Your task to perform on an android device: open a new tab in the chrome app Image 0: 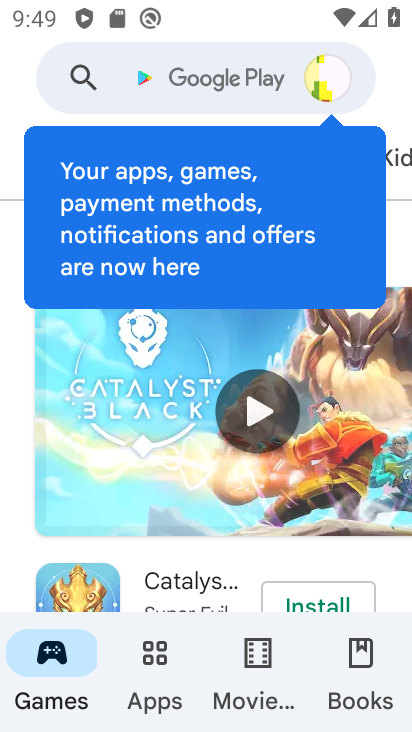
Step 0: press home button
Your task to perform on an android device: open a new tab in the chrome app Image 1: 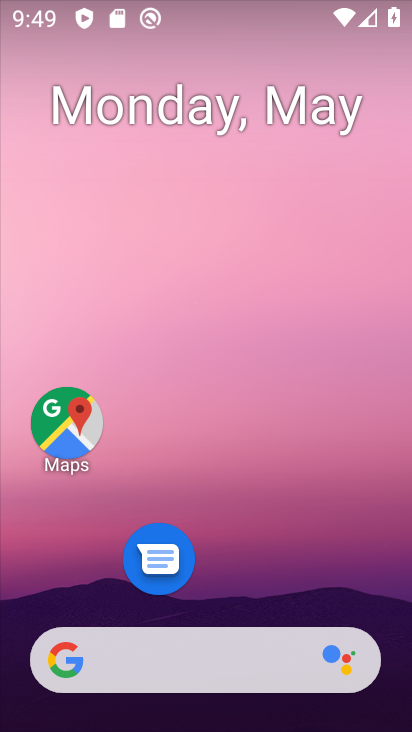
Step 1: drag from (62, 493) to (358, 442)
Your task to perform on an android device: open a new tab in the chrome app Image 2: 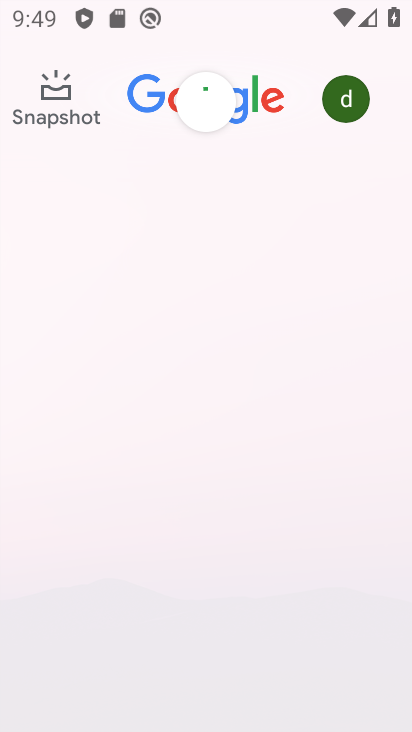
Step 2: press back button
Your task to perform on an android device: open a new tab in the chrome app Image 3: 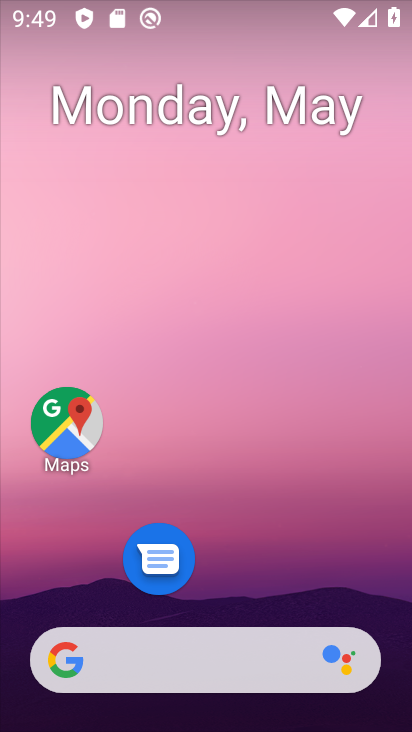
Step 3: drag from (287, 415) to (152, 322)
Your task to perform on an android device: open a new tab in the chrome app Image 4: 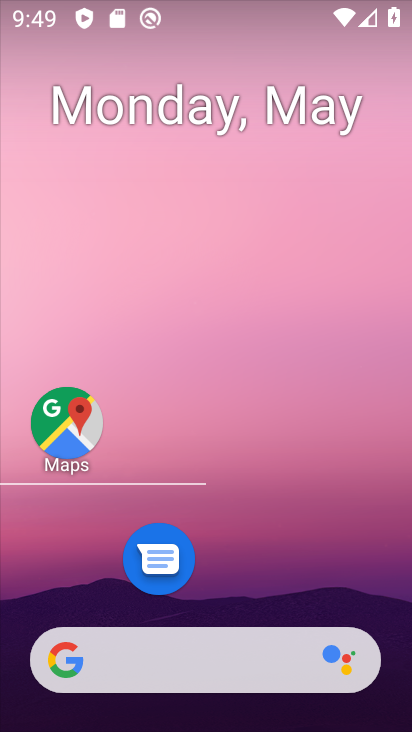
Step 4: drag from (253, 598) to (198, 80)
Your task to perform on an android device: open a new tab in the chrome app Image 5: 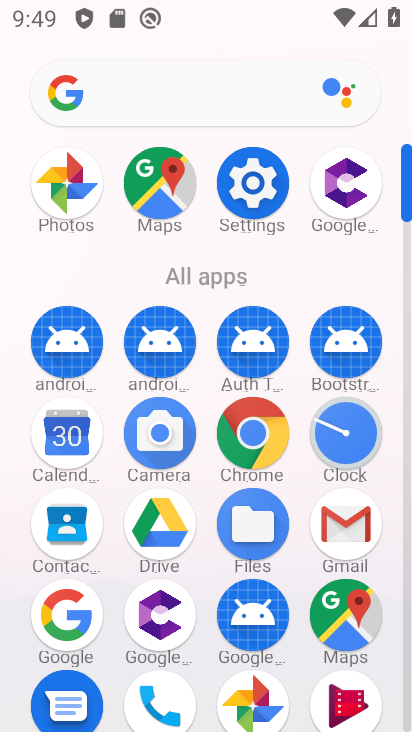
Step 5: drag from (268, 430) to (223, 466)
Your task to perform on an android device: open a new tab in the chrome app Image 6: 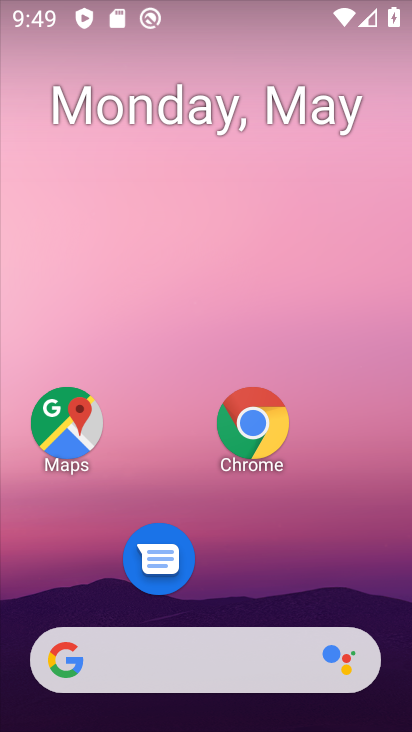
Step 6: click (255, 414)
Your task to perform on an android device: open a new tab in the chrome app Image 7: 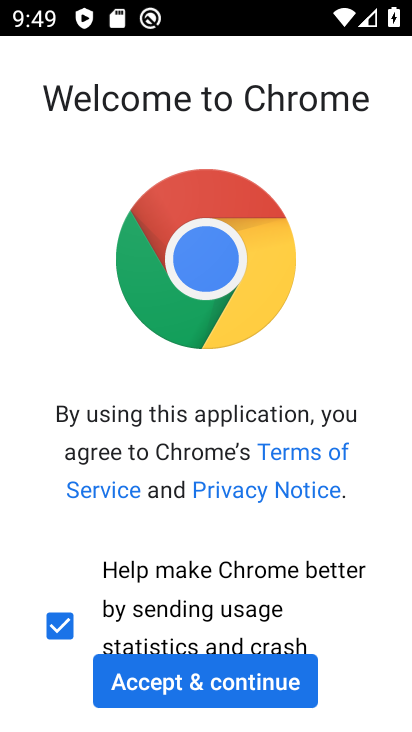
Step 7: click (219, 692)
Your task to perform on an android device: open a new tab in the chrome app Image 8: 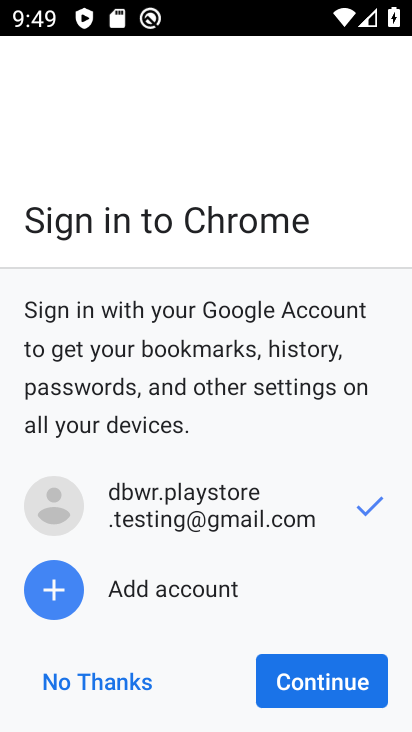
Step 8: click (342, 675)
Your task to perform on an android device: open a new tab in the chrome app Image 9: 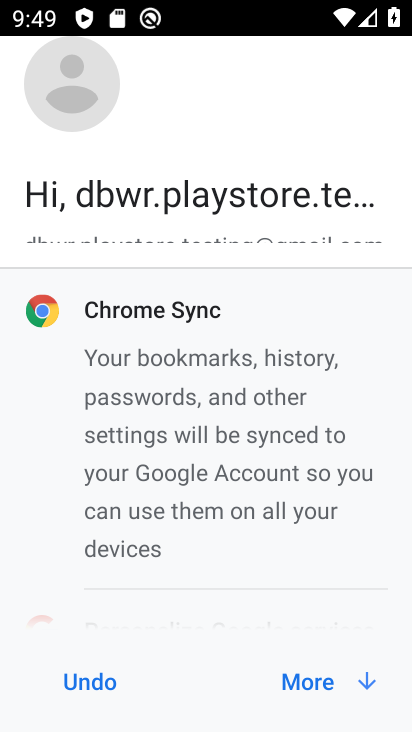
Step 9: click (342, 675)
Your task to perform on an android device: open a new tab in the chrome app Image 10: 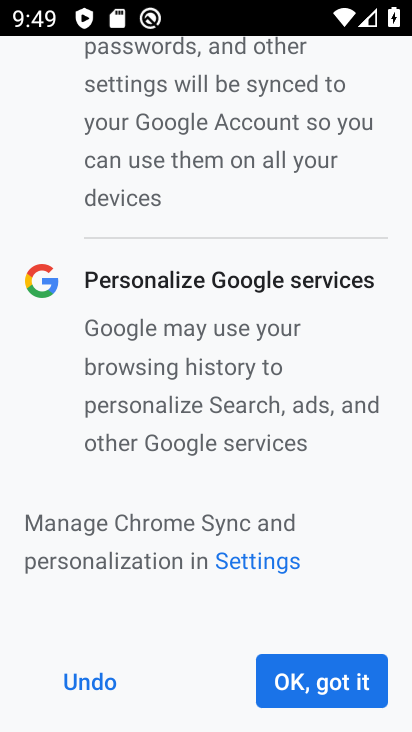
Step 10: click (342, 675)
Your task to perform on an android device: open a new tab in the chrome app Image 11: 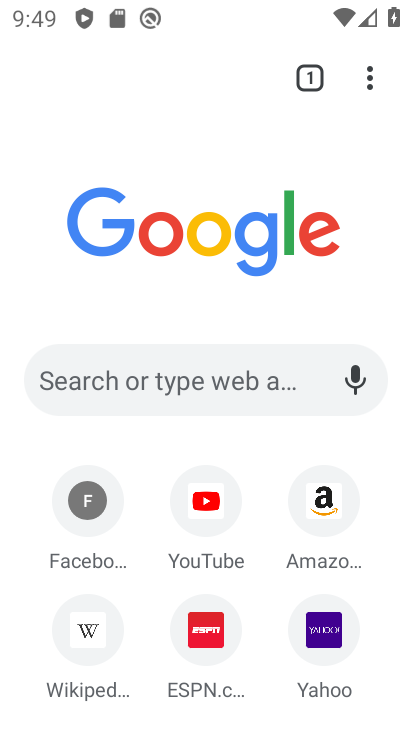
Step 11: task complete